Your task to perform on an android device: Open the play store Image 0: 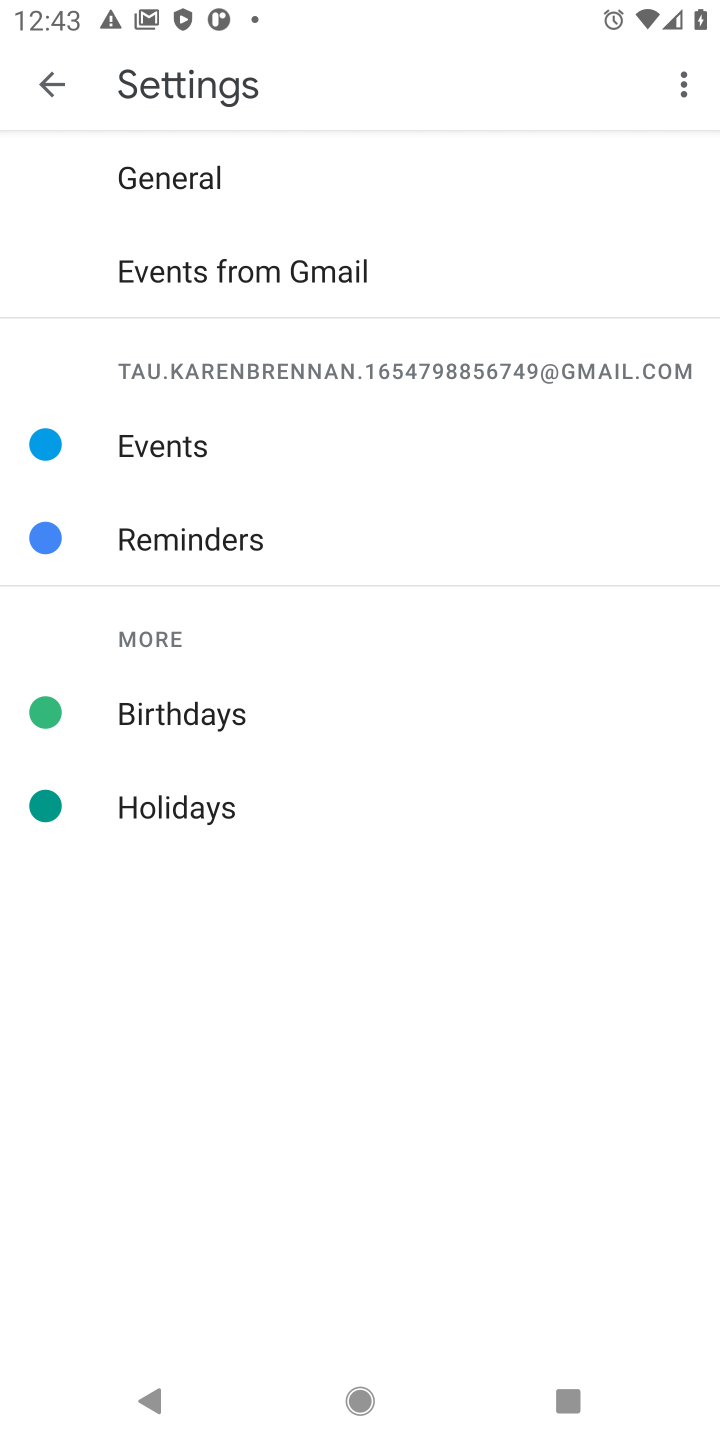
Step 0: press home button
Your task to perform on an android device: Open the play store Image 1: 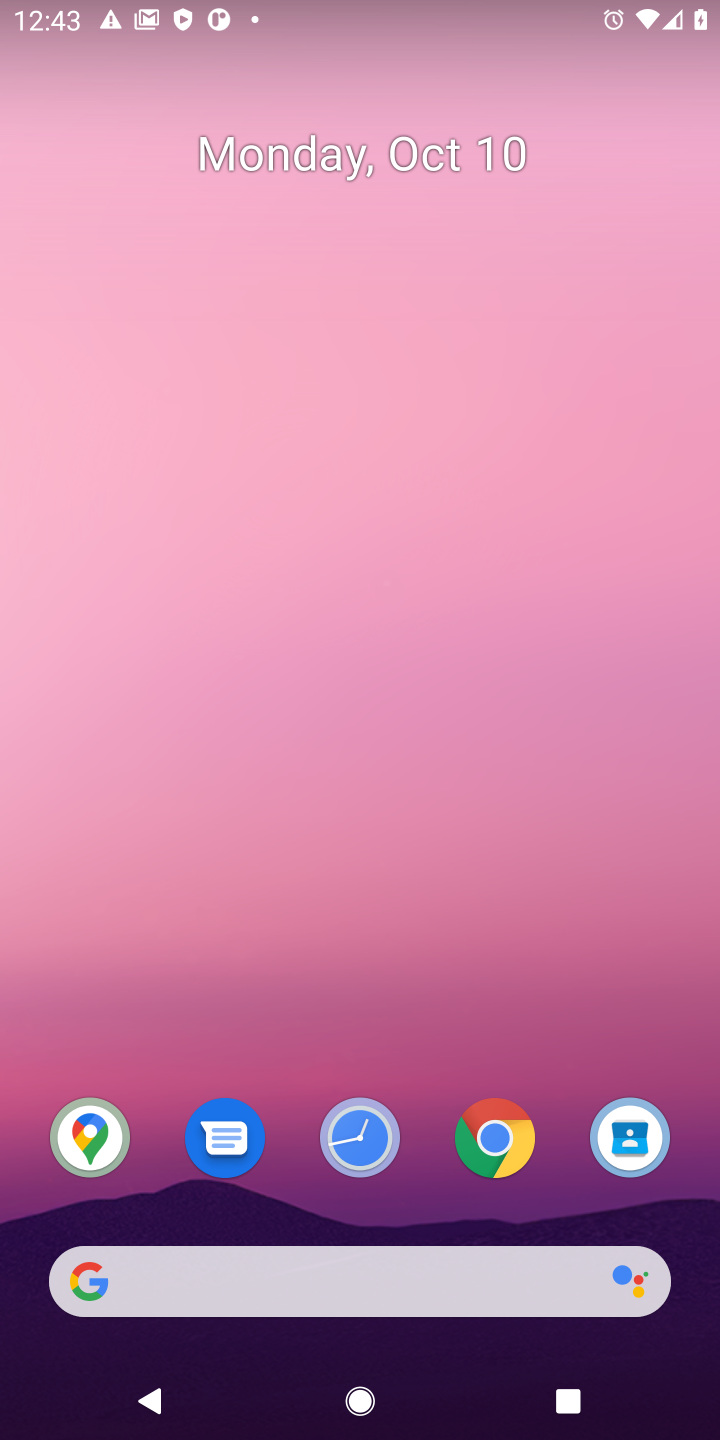
Step 1: drag from (417, 1189) to (234, 74)
Your task to perform on an android device: Open the play store Image 2: 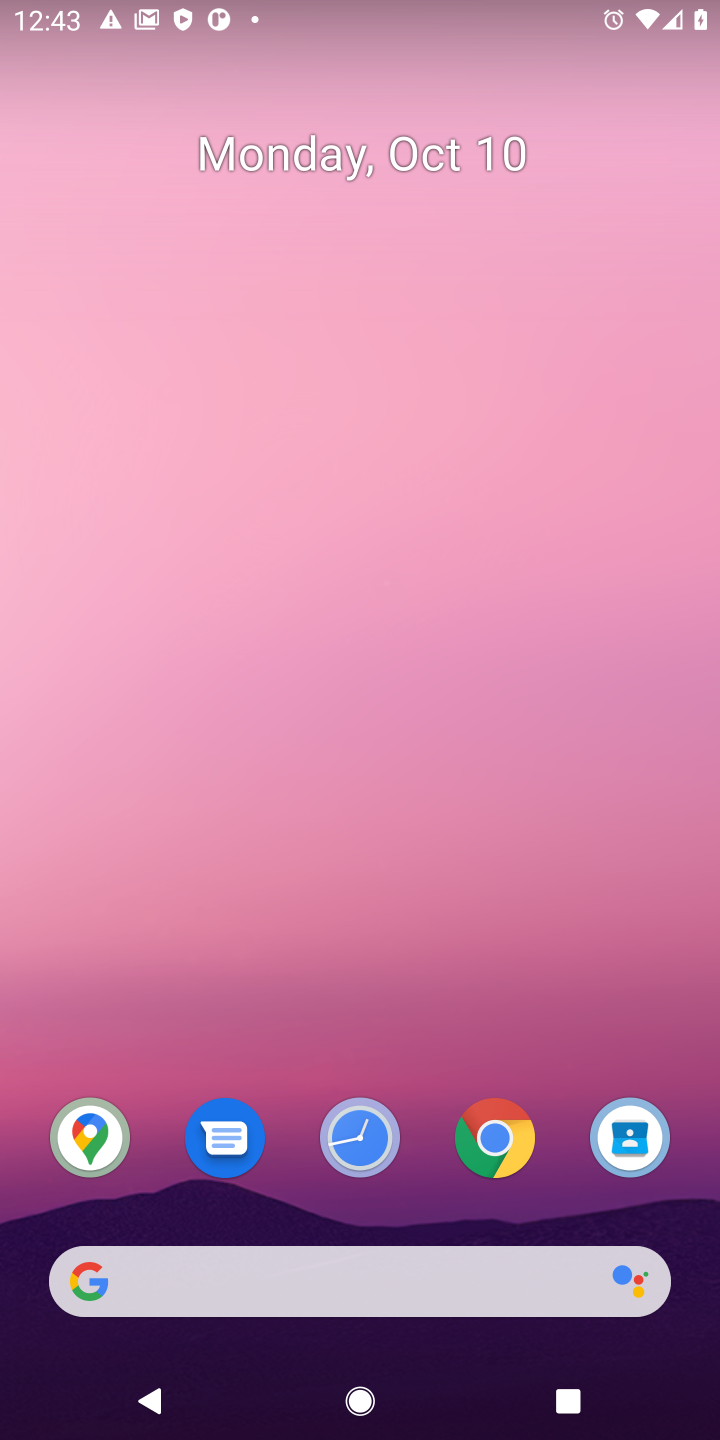
Step 2: drag from (406, 1269) to (371, 5)
Your task to perform on an android device: Open the play store Image 3: 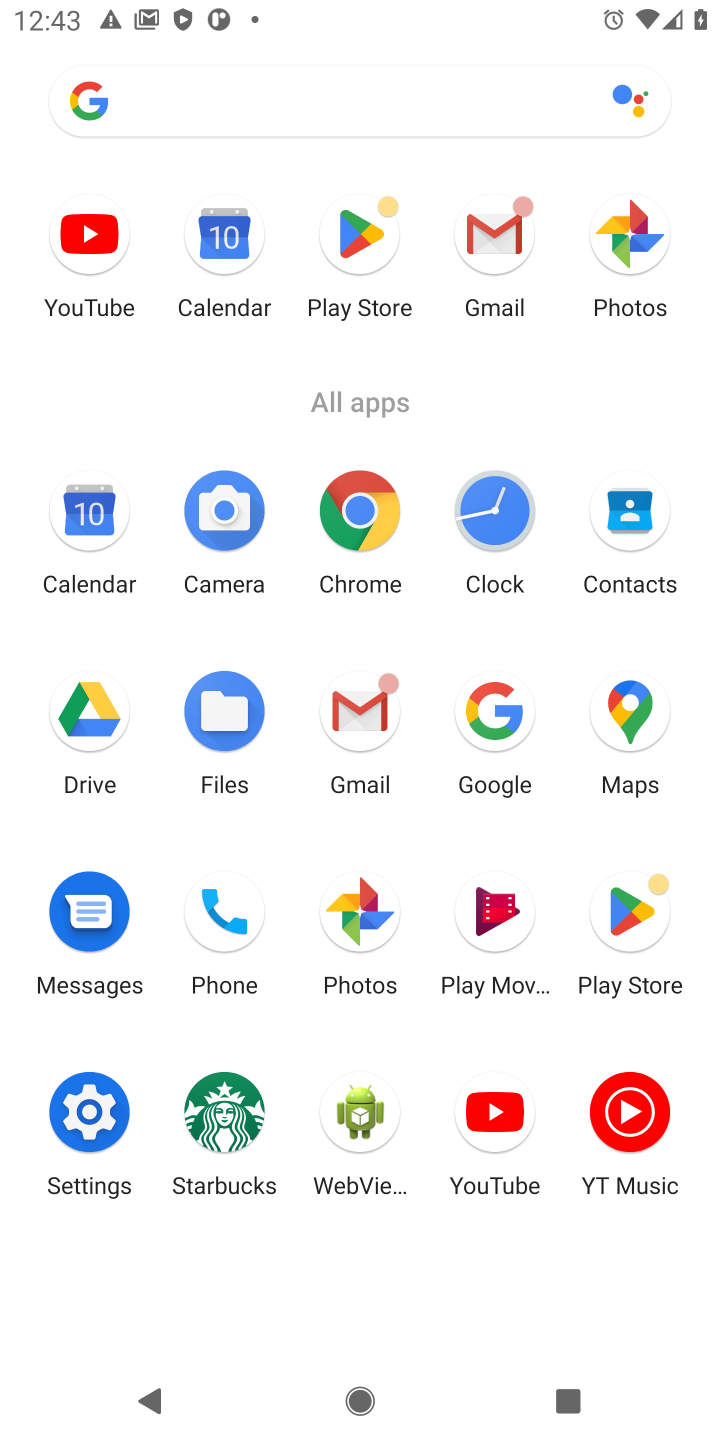
Step 3: click (352, 225)
Your task to perform on an android device: Open the play store Image 4: 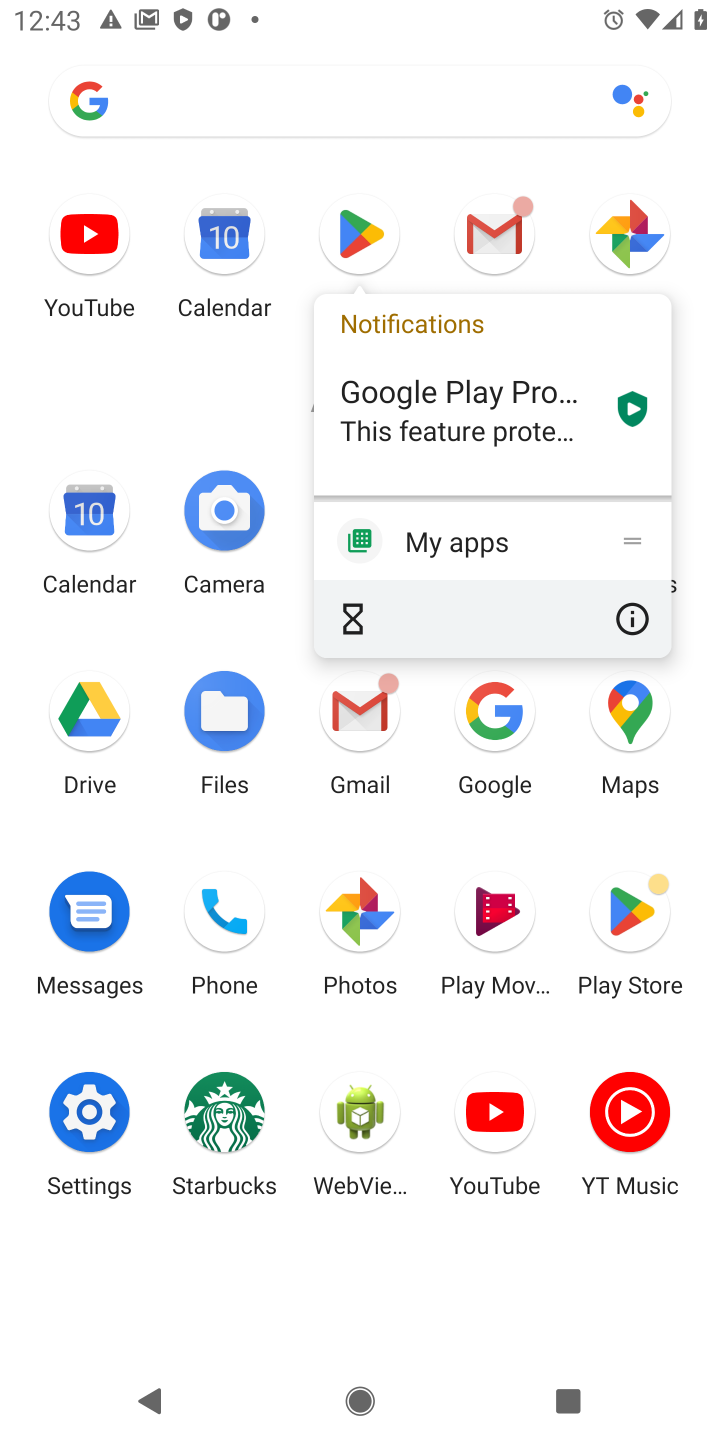
Step 4: click (635, 912)
Your task to perform on an android device: Open the play store Image 5: 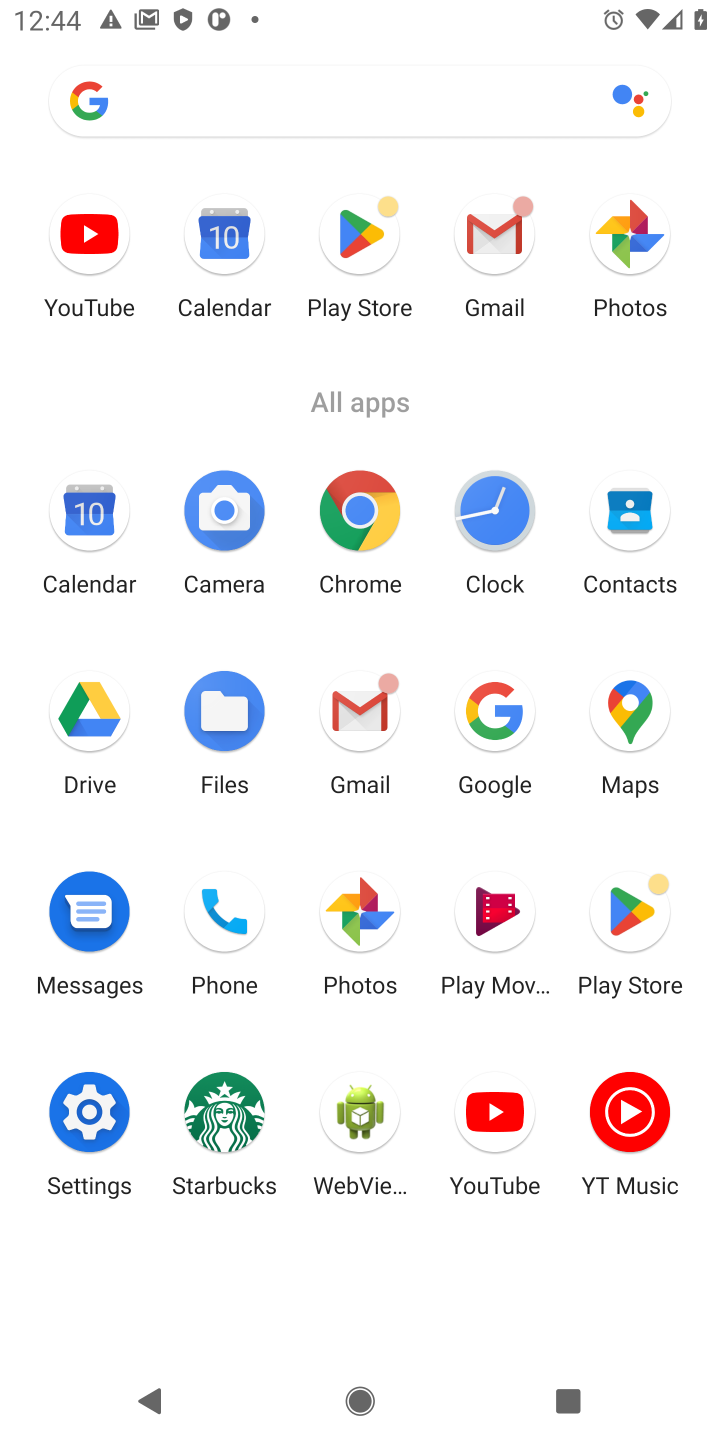
Step 5: click (635, 912)
Your task to perform on an android device: Open the play store Image 6: 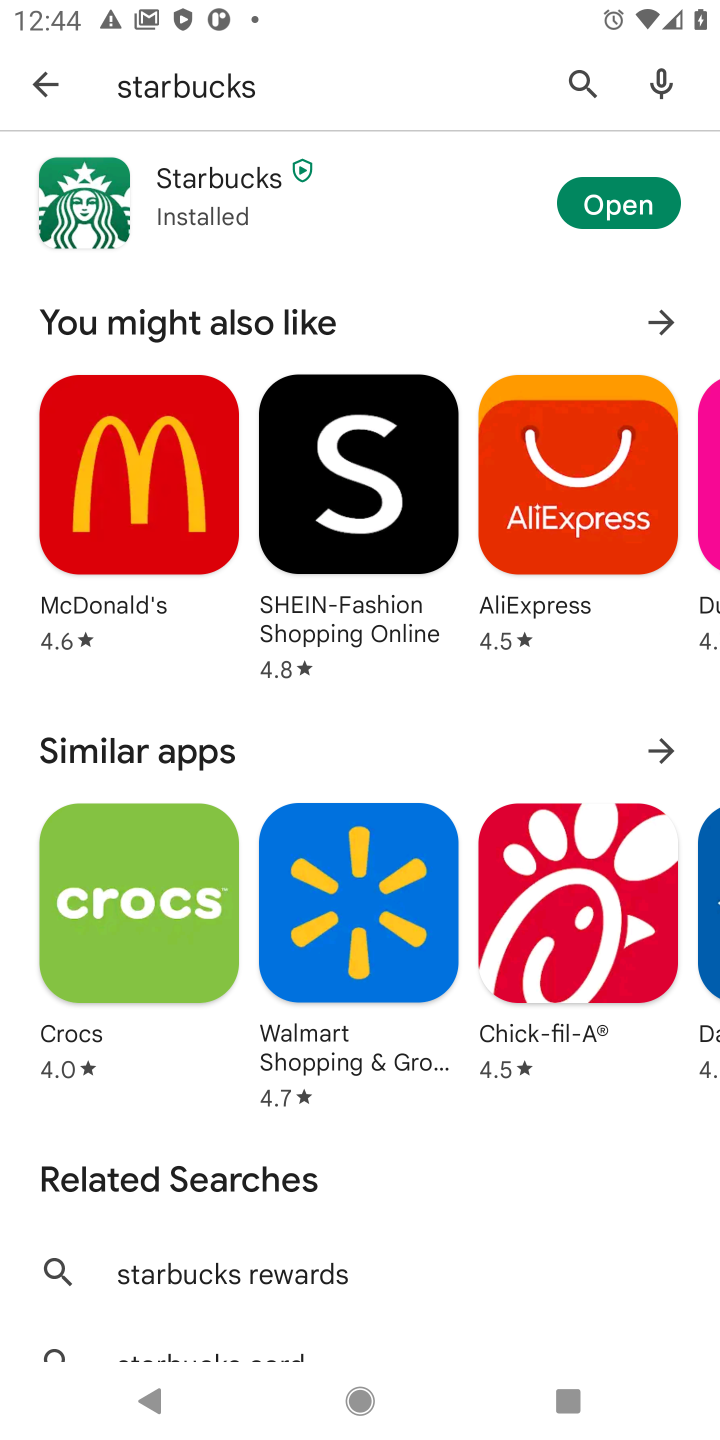
Step 6: task complete